Your task to perform on an android device: Set the phone to "Do not disturb". Image 0: 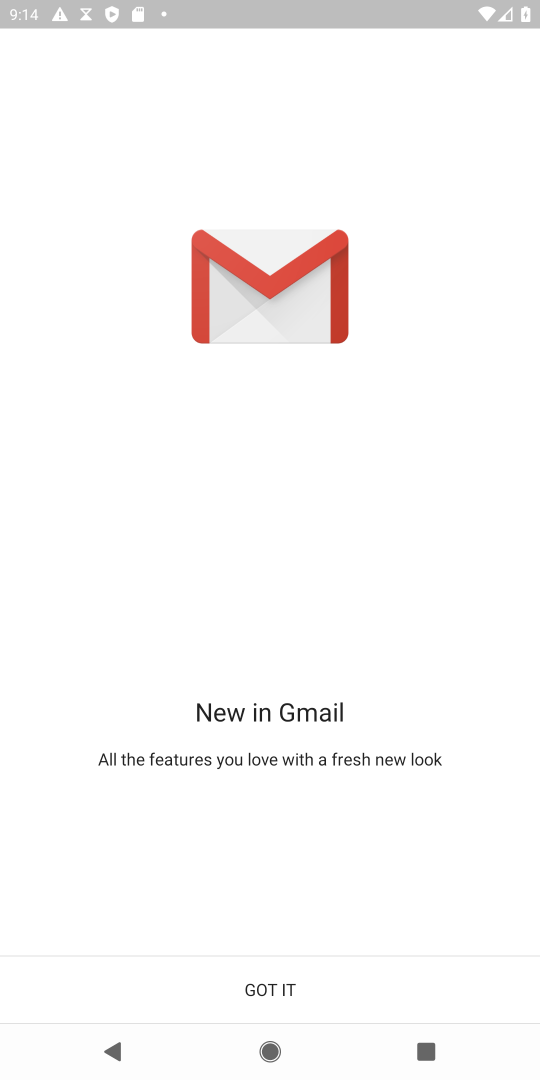
Step 0: drag from (275, 79) to (259, 778)
Your task to perform on an android device: Set the phone to "Do not disturb". Image 1: 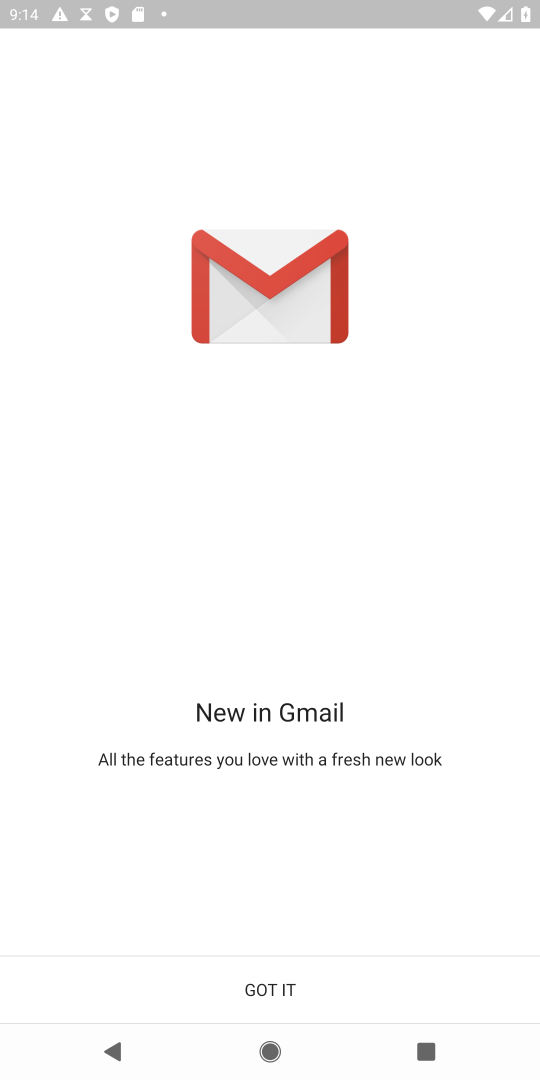
Step 1: drag from (245, 0) to (221, 836)
Your task to perform on an android device: Set the phone to "Do not disturb". Image 2: 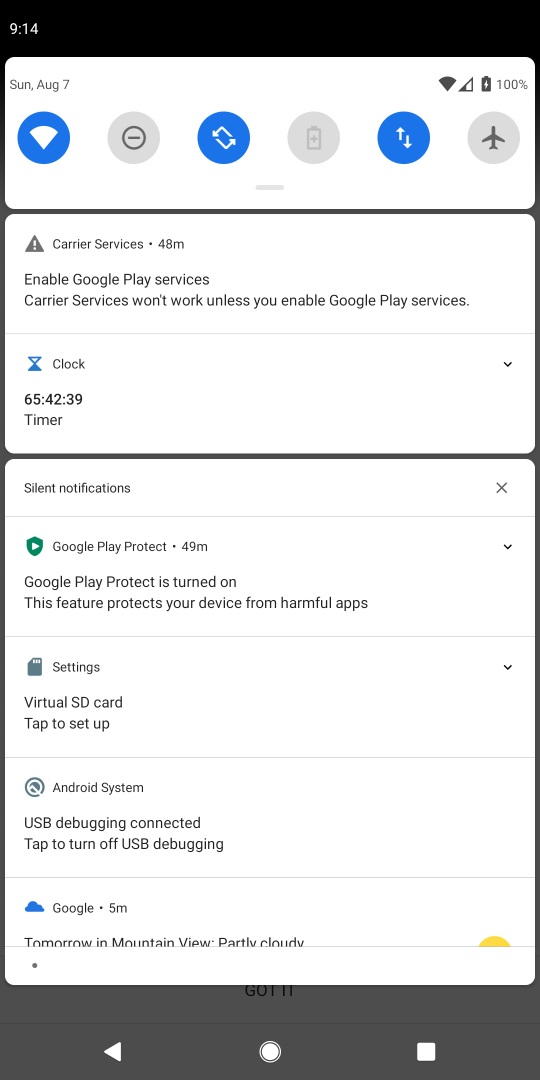
Step 2: click (129, 133)
Your task to perform on an android device: Set the phone to "Do not disturb". Image 3: 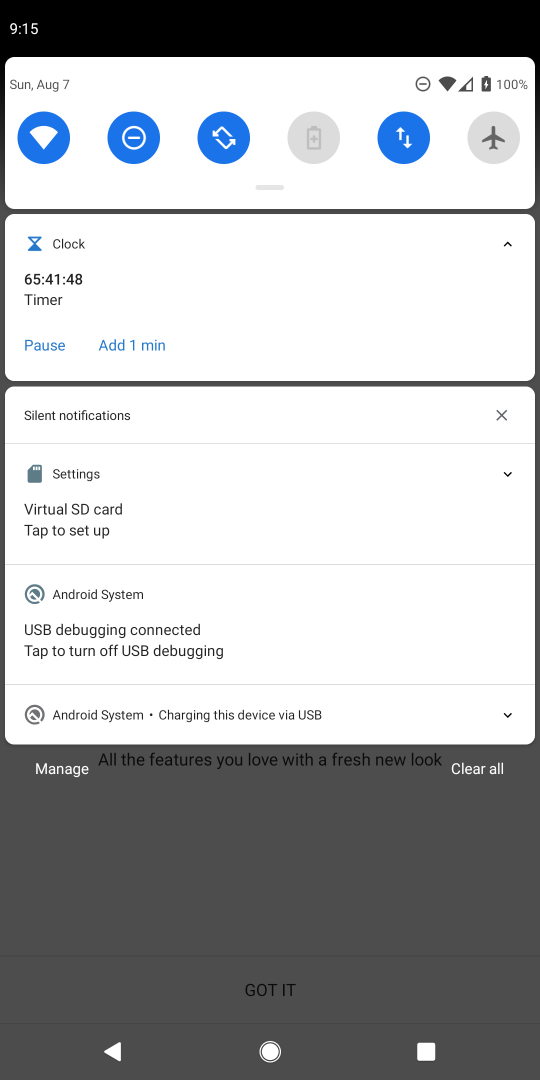
Step 3: task complete